Your task to perform on an android device: turn on airplane mode Image 0: 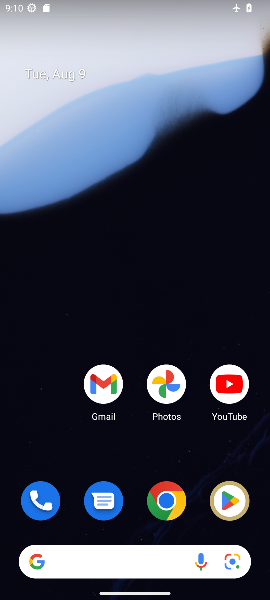
Step 0: drag from (136, 459) to (9, 8)
Your task to perform on an android device: turn on airplane mode Image 1: 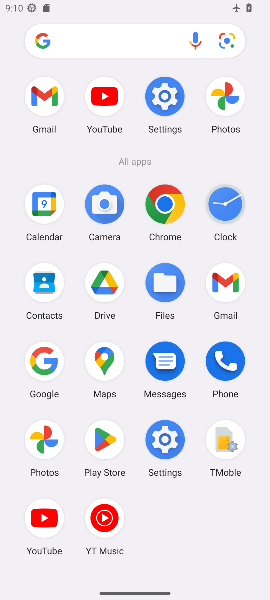
Step 1: click (170, 99)
Your task to perform on an android device: turn on airplane mode Image 2: 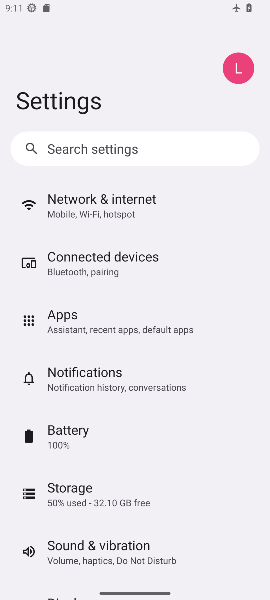
Step 2: click (93, 211)
Your task to perform on an android device: turn on airplane mode Image 3: 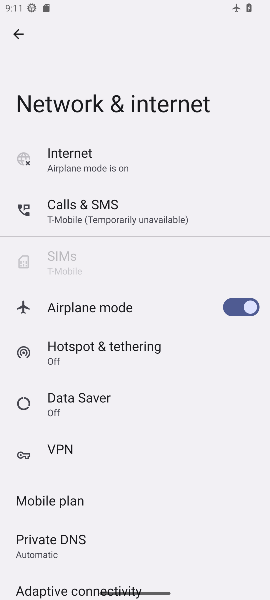
Step 3: task complete